Your task to perform on an android device: Search for sushi restaurants on Maps Image 0: 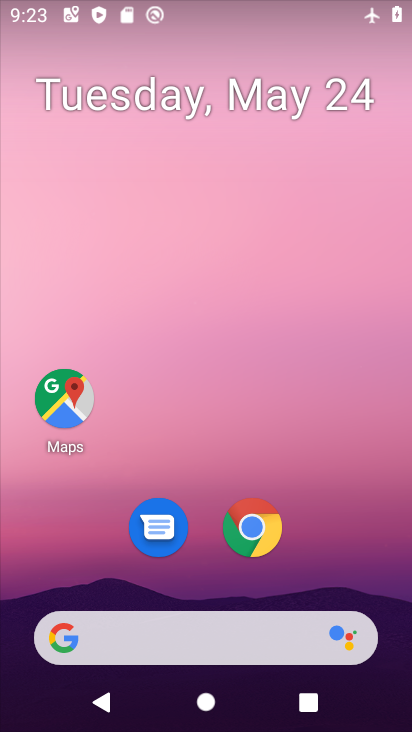
Step 0: click (75, 400)
Your task to perform on an android device: Search for sushi restaurants on Maps Image 1: 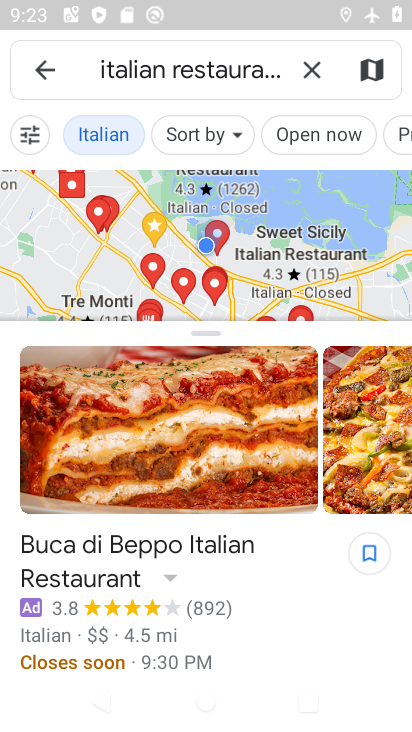
Step 1: click (299, 72)
Your task to perform on an android device: Search for sushi restaurants on Maps Image 2: 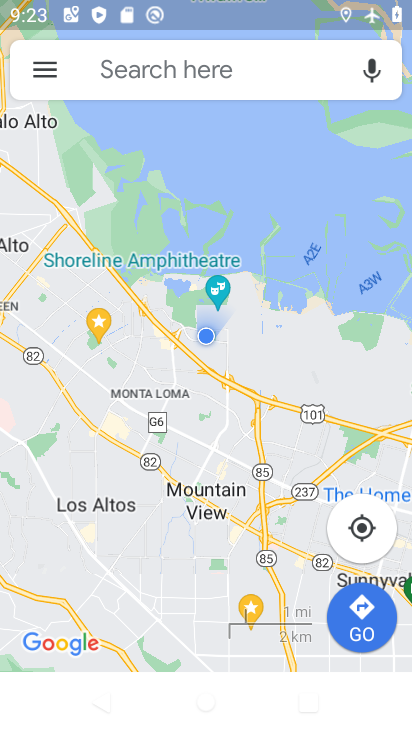
Step 2: click (115, 60)
Your task to perform on an android device: Search for sushi restaurants on Maps Image 3: 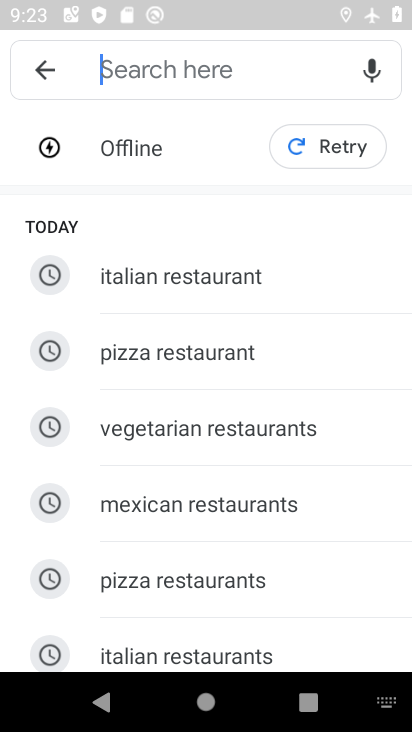
Step 3: type " sushi restaurants "
Your task to perform on an android device: Search for sushi restaurants on Maps Image 4: 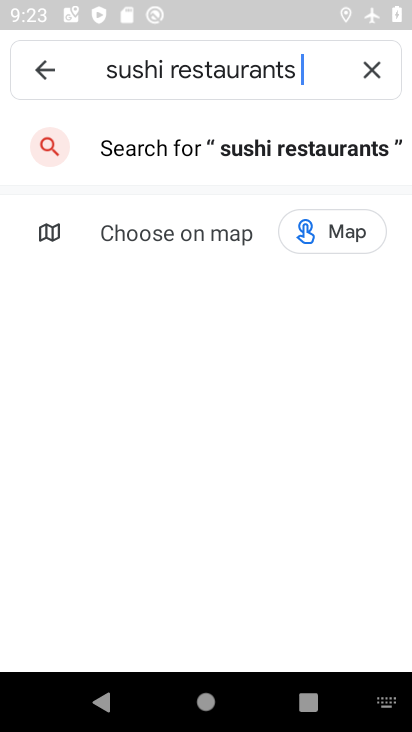
Step 4: click (254, 136)
Your task to perform on an android device: Search for sushi restaurants on Maps Image 5: 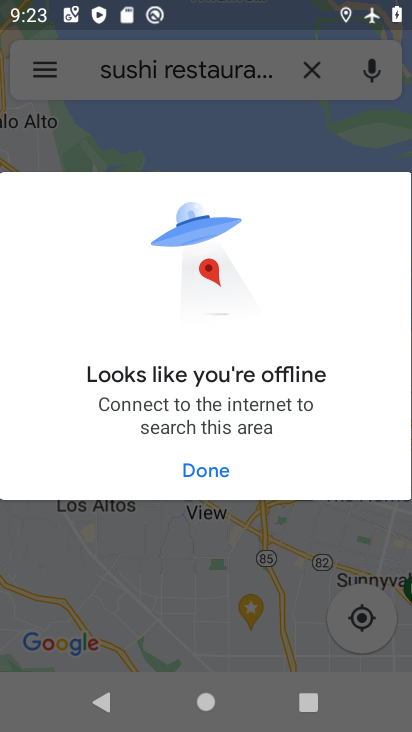
Step 5: task complete